Your task to perform on an android device: set default search engine in the chrome app Image 0: 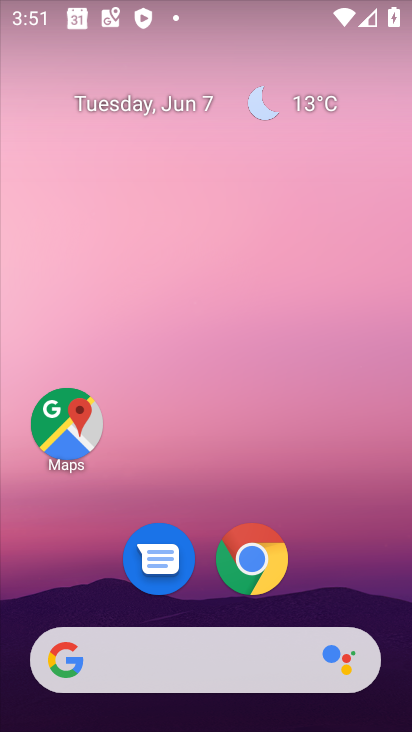
Step 0: click (254, 560)
Your task to perform on an android device: set default search engine in the chrome app Image 1: 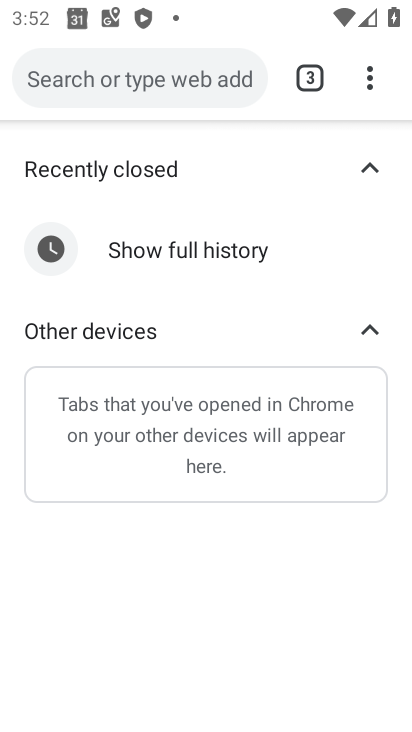
Step 1: click (370, 74)
Your task to perform on an android device: set default search engine in the chrome app Image 2: 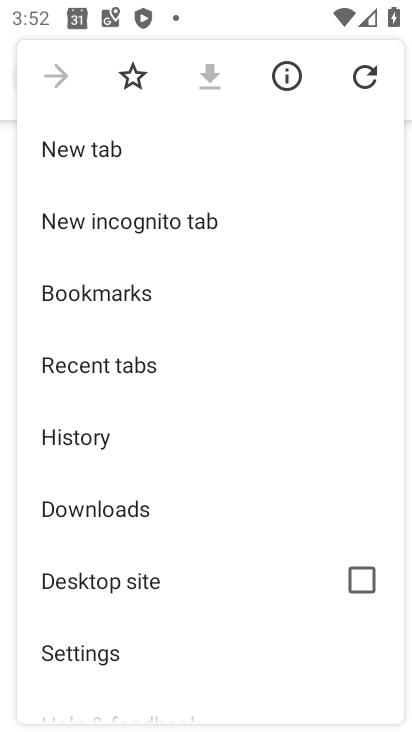
Step 2: drag from (134, 553) to (137, 450)
Your task to perform on an android device: set default search engine in the chrome app Image 3: 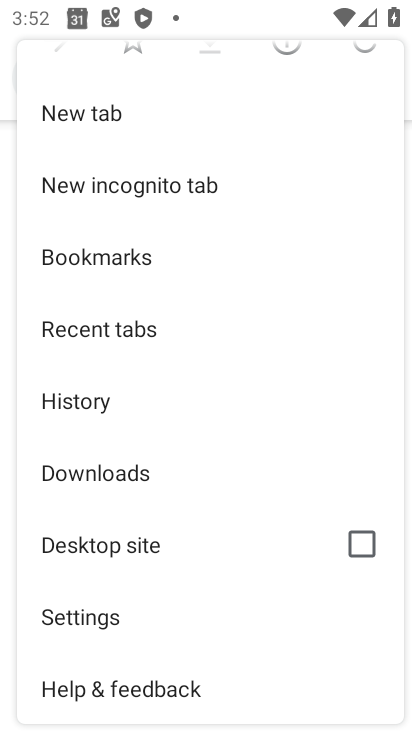
Step 3: click (95, 620)
Your task to perform on an android device: set default search engine in the chrome app Image 4: 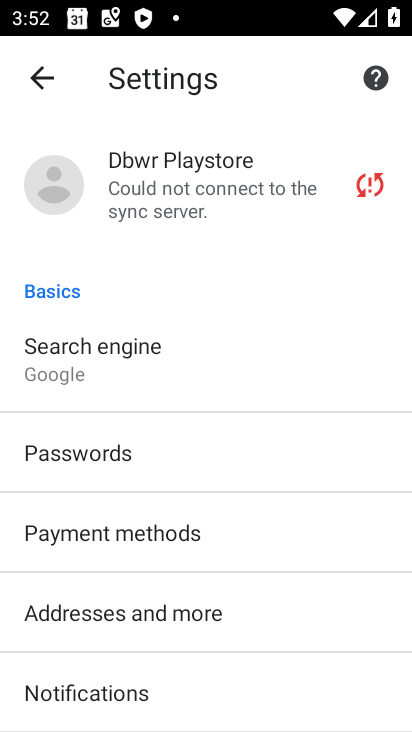
Step 4: click (161, 347)
Your task to perform on an android device: set default search engine in the chrome app Image 5: 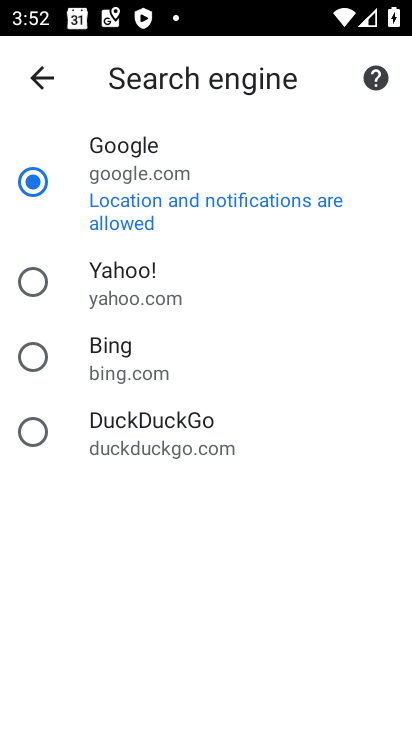
Step 5: click (34, 184)
Your task to perform on an android device: set default search engine in the chrome app Image 6: 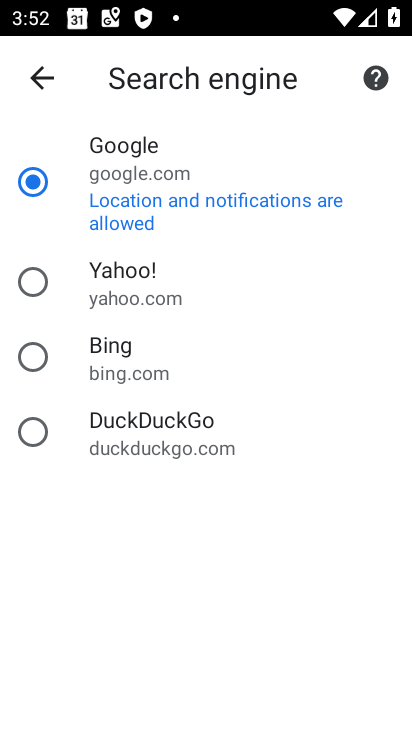
Step 6: task complete